Your task to perform on an android device: empty trash in the gmail app Image 0: 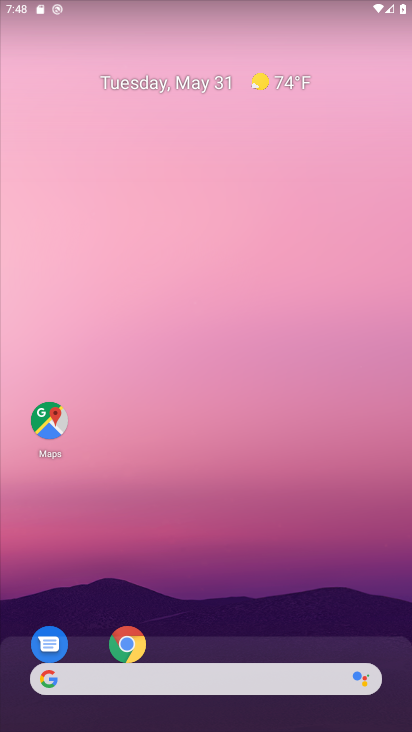
Step 0: press home button
Your task to perform on an android device: empty trash in the gmail app Image 1: 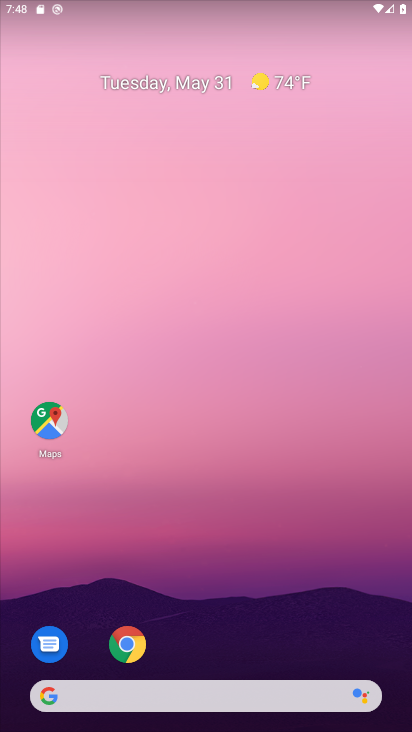
Step 1: drag from (237, 624) to (293, 141)
Your task to perform on an android device: empty trash in the gmail app Image 2: 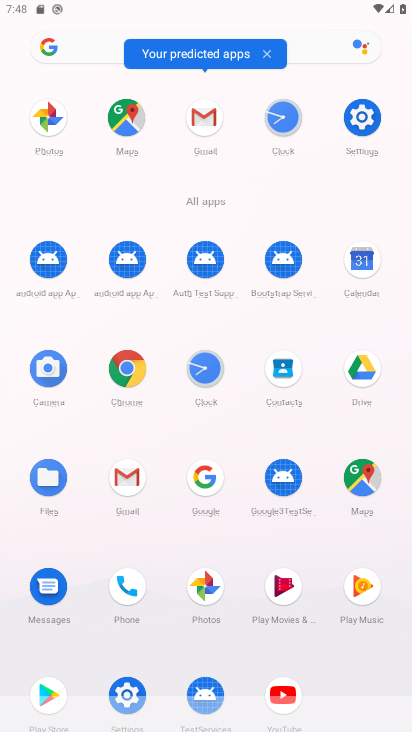
Step 2: click (120, 473)
Your task to perform on an android device: empty trash in the gmail app Image 3: 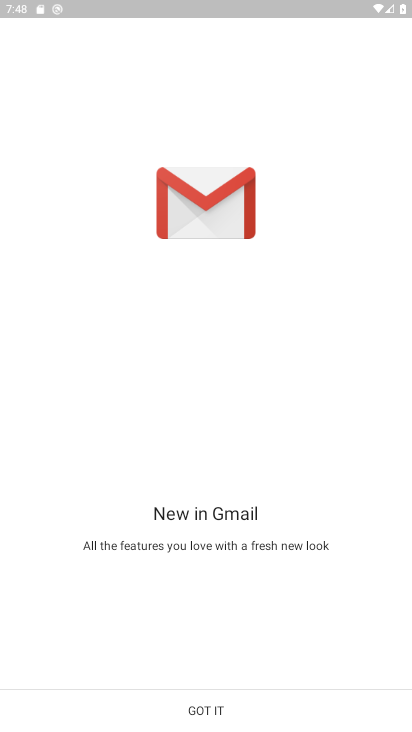
Step 3: click (200, 701)
Your task to perform on an android device: empty trash in the gmail app Image 4: 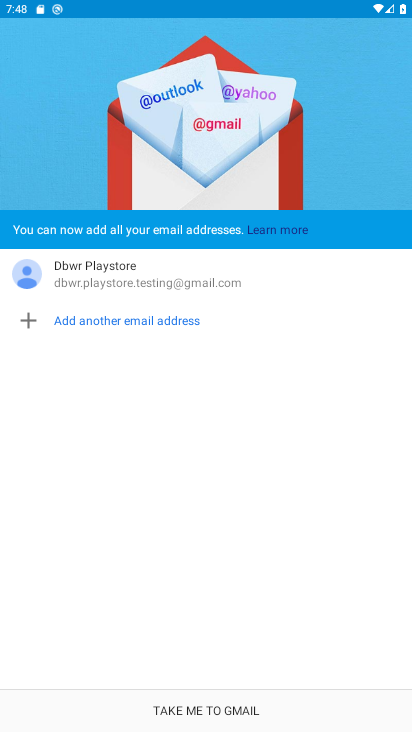
Step 4: click (222, 702)
Your task to perform on an android device: empty trash in the gmail app Image 5: 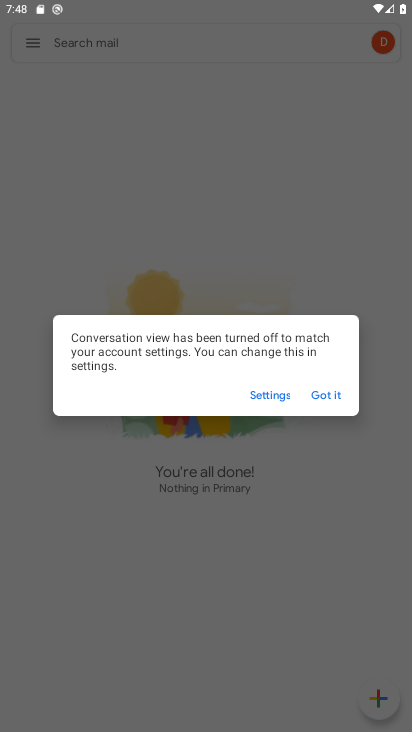
Step 5: click (326, 392)
Your task to perform on an android device: empty trash in the gmail app Image 6: 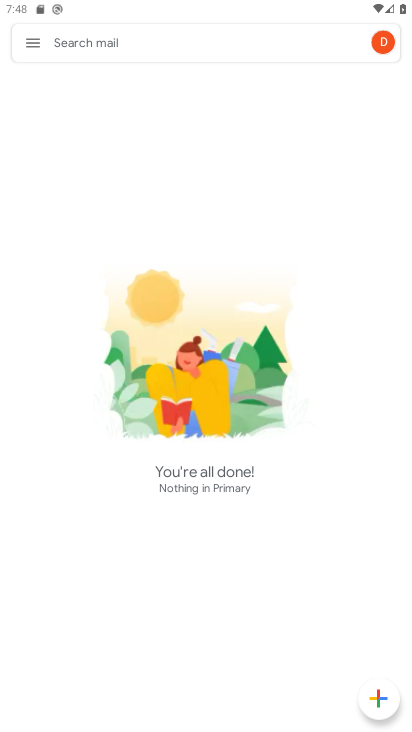
Step 6: click (28, 35)
Your task to perform on an android device: empty trash in the gmail app Image 7: 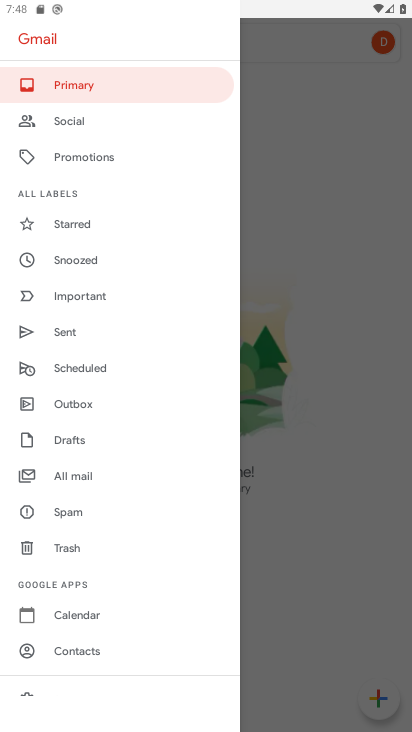
Step 7: click (81, 550)
Your task to perform on an android device: empty trash in the gmail app Image 8: 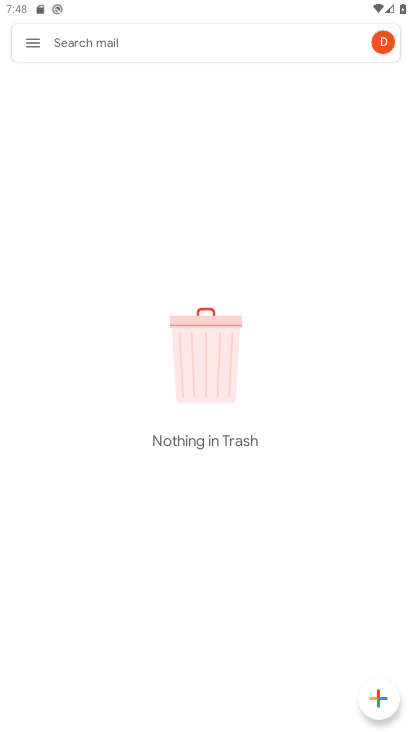
Step 8: task complete